Your task to perform on an android device: Open the web browser Image 0: 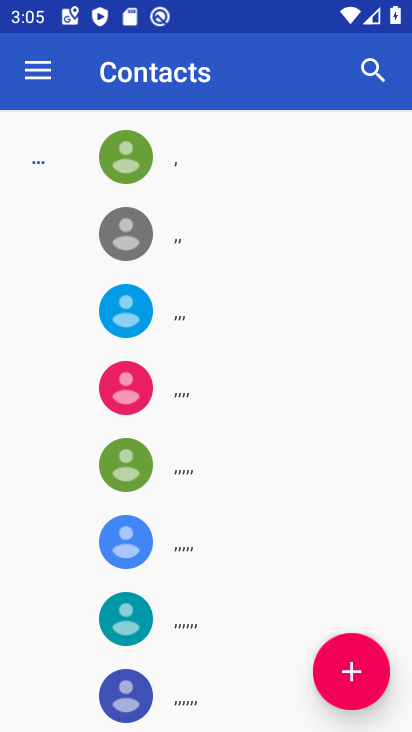
Step 0: press home button
Your task to perform on an android device: Open the web browser Image 1: 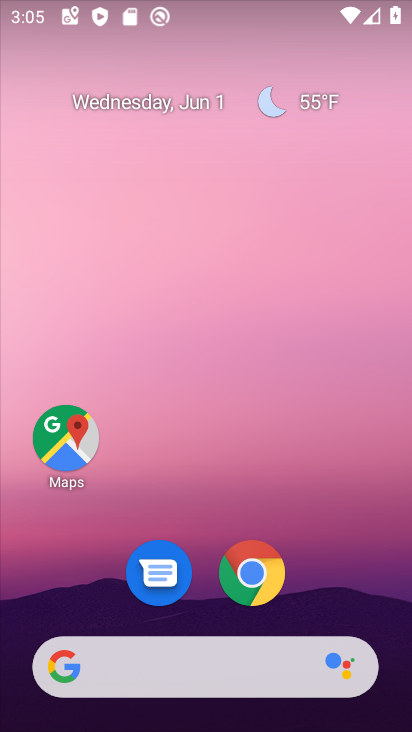
Step 1: click (252, 580)
Your task to perform on an android device: Open the web browser Image 2: 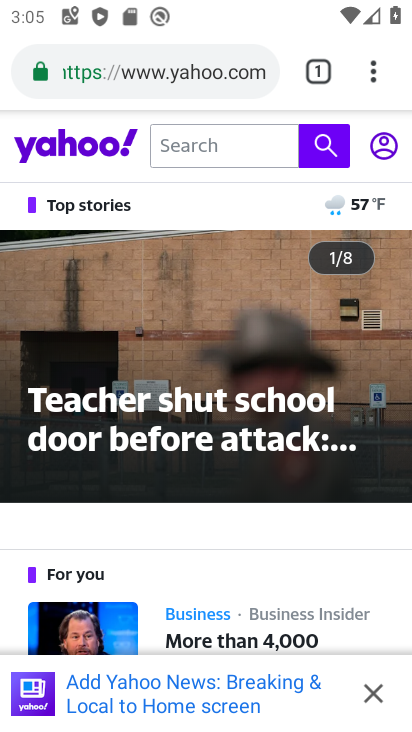
Step 2: task complete